Your task to perform on an android device: turn on notifications settings in the gmail app Image 0: 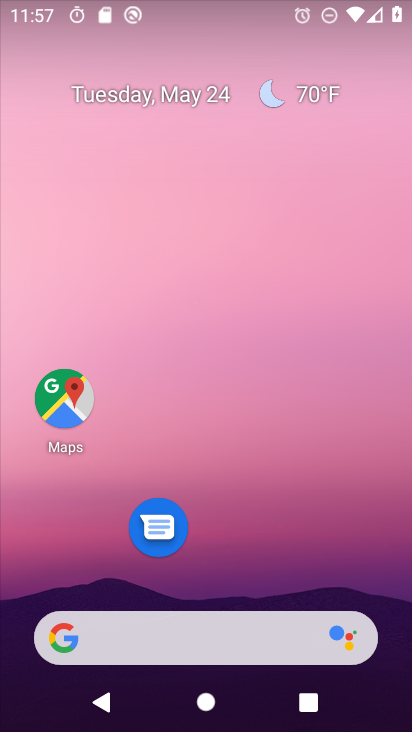
Step 0: drag from (248, 568) to (250, 102)
Your task to perform on an android device: turn on notifications settings in the gmail app Image 1: 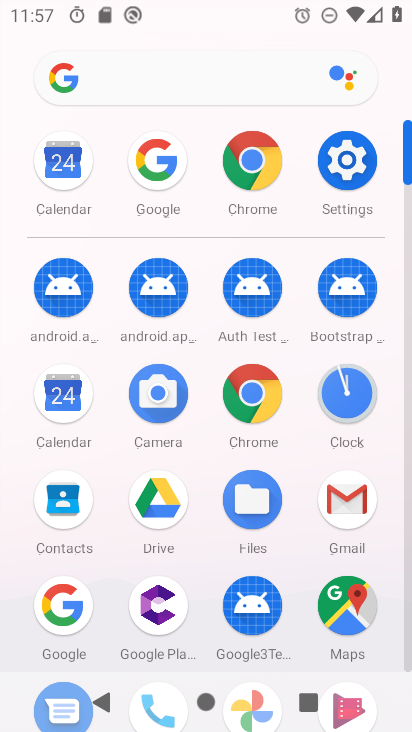
Step 1: click (348, 500)
Your task to perform on an android device: turn on notifications settings in the gmail app Image 2: 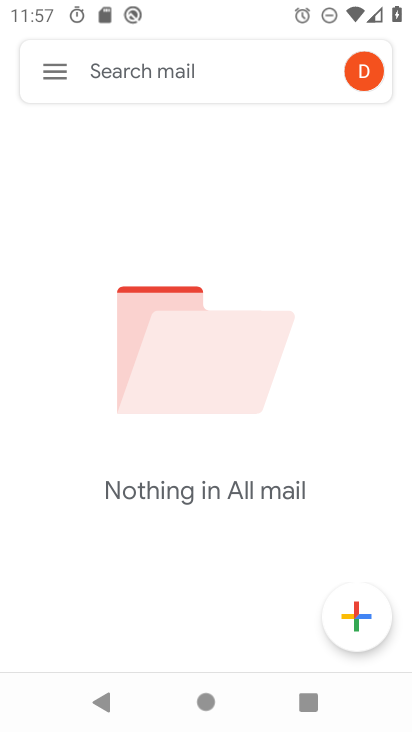
Step 2: click (44, 73)
Your task to perform on an android device: turn on notifications settings in the gmail app Image 3: 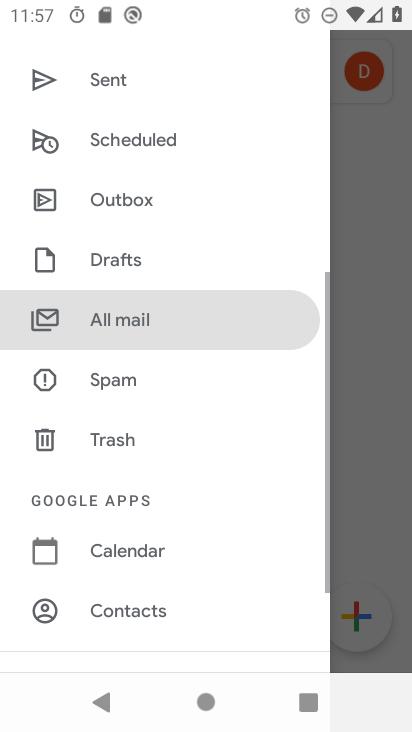
Step 3: drag from (174, 548) to (181, 142)
Your task to perform on an android device: turn on notifications settings in the gmail app Image 4: 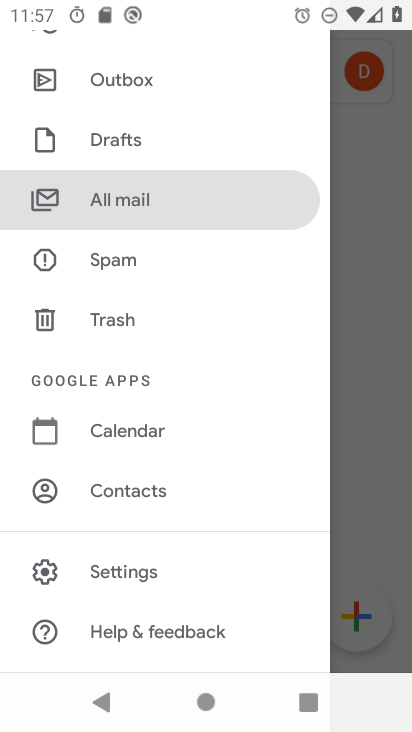
Step 4: click (141, 570)
Your task to perform on an android device: turn on notifications settings in the gmail app Image 5: 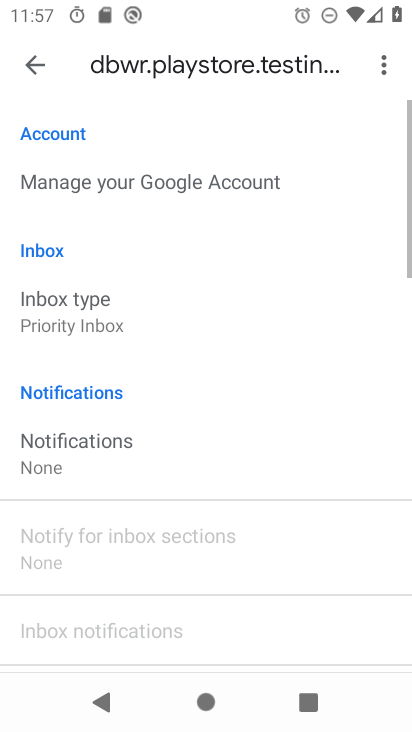
Step 5: drag from (185, 561) to (215, 109)
Your task to perform on an android device: turn on notifications settings in the gmail app Image 6: 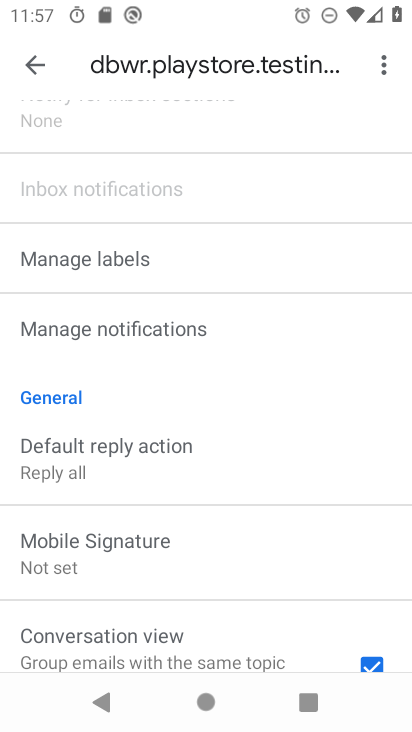
Step 6: drag from (173, 559) to (158, 234)
Your task to perform on an android device: turn on notifications settings in the gmail app Image 7: 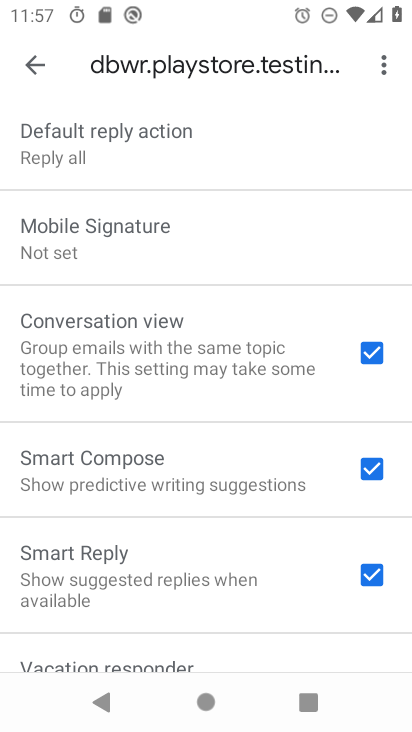
Step 7: drag from (155, 606) to (159, 372)
Your task to perform on an android device: turn on notifications settings in the gmail app Image 8: 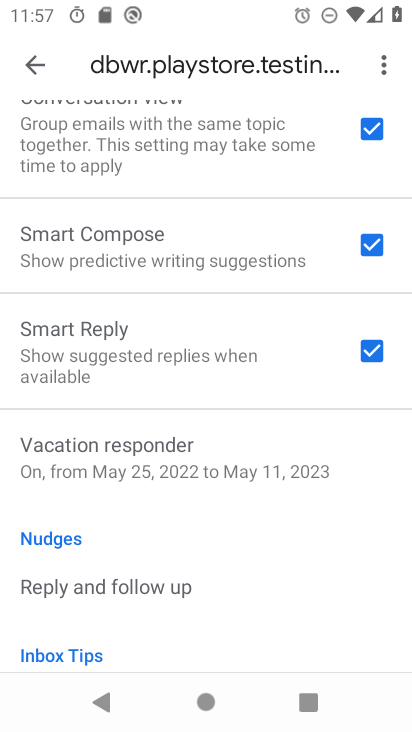
Step 8: drag from (184, 245) to (170, 525)
Your task to perform on an android device: turn on notifications settings in the gmail app Image 9: 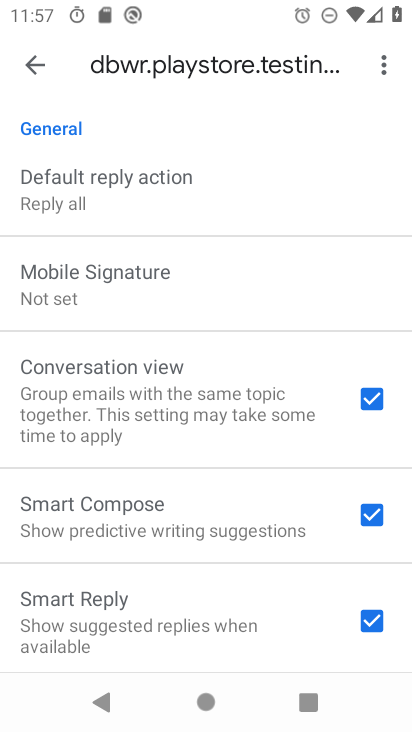
Step 9: drag from (155, 249) to (153, 551)
Your task to perform on an android device: turn on notifications settings in the gmail app Image 10: 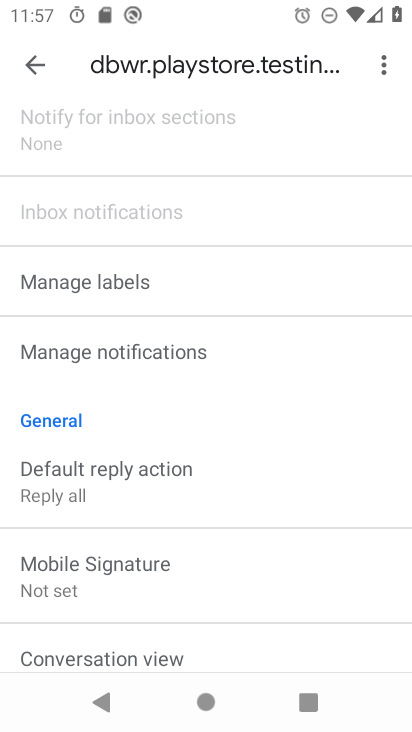
Step 10: drag from (170, 258) to (166, 646)
Your task to perform on an android device: turn on notifications settings in the gmail app Image 11: 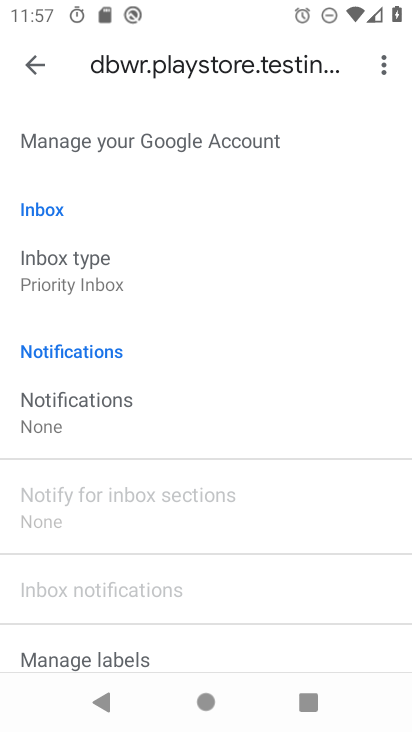
Step 11: click (107, 414)
Your task to perform on an android device: turn on notifications settings in the gmail app Image 12: 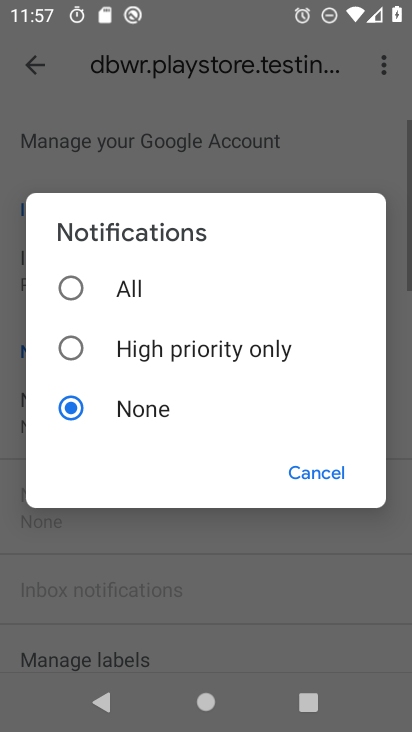
Step 12: click (109, 293)
Your task to perform on an android device: turn on notifications settings in the gmail app Image 13: 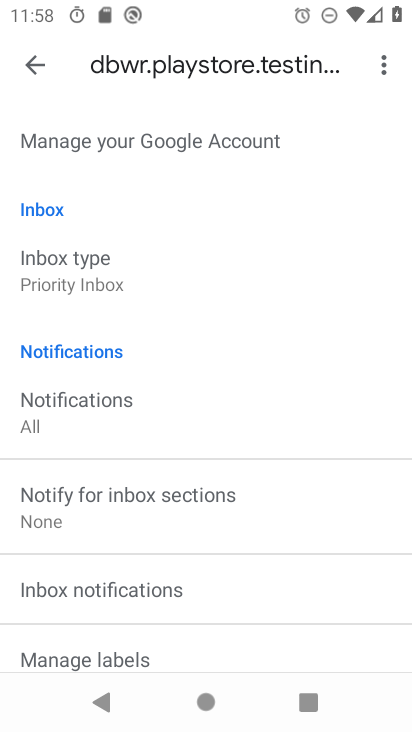
Step 13: task complete